Your task to perform on an android device: Show me productivity apps on the Play Store Image 0: 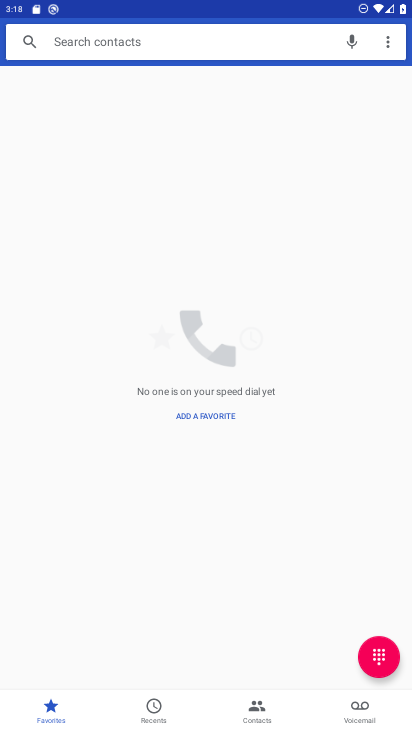
Step 0: press home button
Your task to perform on an android device: Show me productivity apps on the Play Store Image 1: 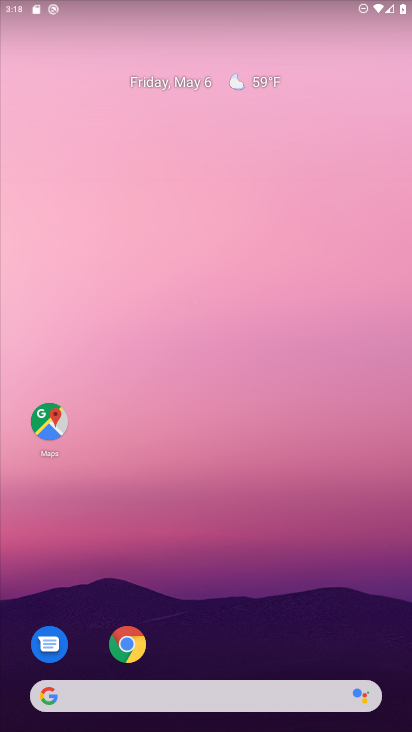
Step 1: drag from (244, 684) to (216, 277)
Your task to perform on an android device: Show me productivity apps on the Play Store Image 2: 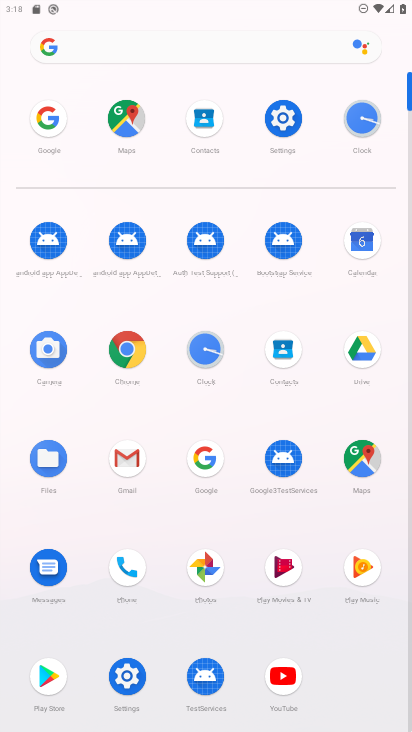
Step 2: click (49, 678)
Your task to perform on an android device: Show me productivity apps on the Play Store Image 3: 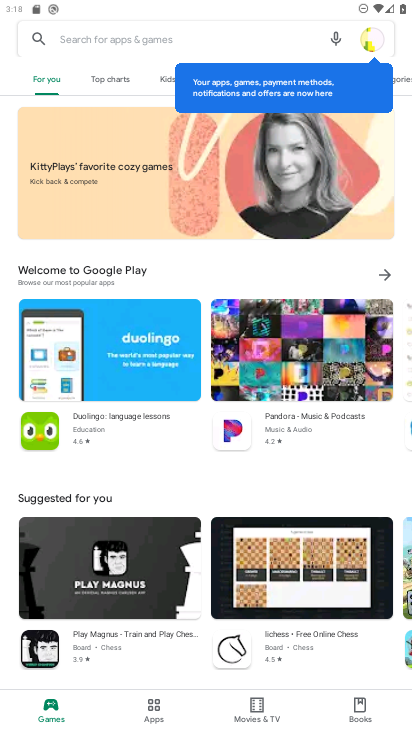
Step 3: click (152, 706)
Your task to perform on an android device: Show me productivity apps on the Play Store Image 4: 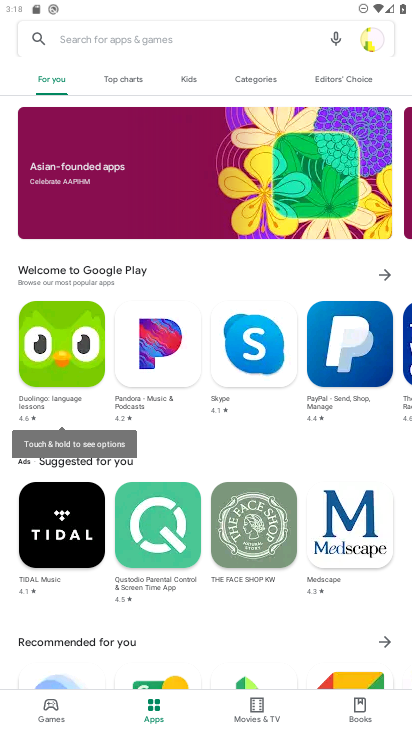
Step 4: drag from (337, 79) to (203, 92)
Your task to perform on an android device: Show me productivity apps on the Play Store Image 5: 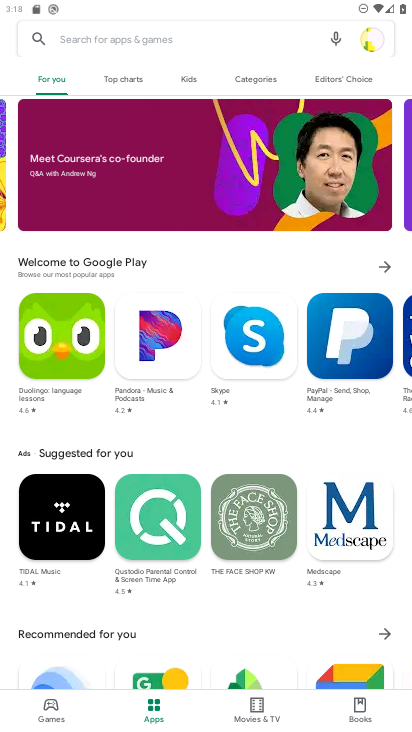
Step 5: click (260, 78)
Your task to perform on an android device: Show me productivity apps on the Play Store Image 6: 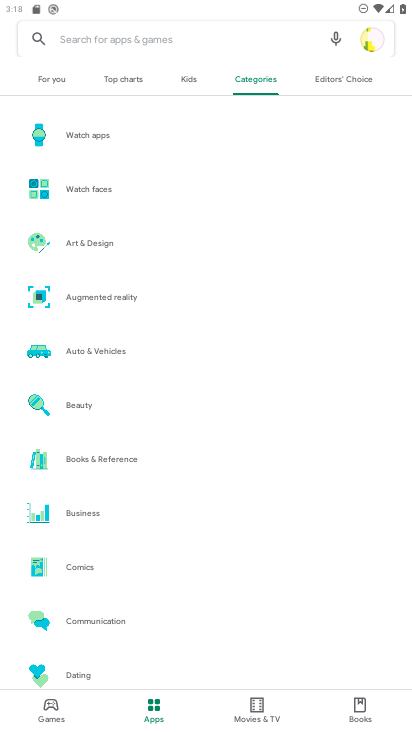
Step 6: drag from (118, 646) to (118, 297)
Your task to perform on an android device: Show me productivity apps on the Play Store Image 7: 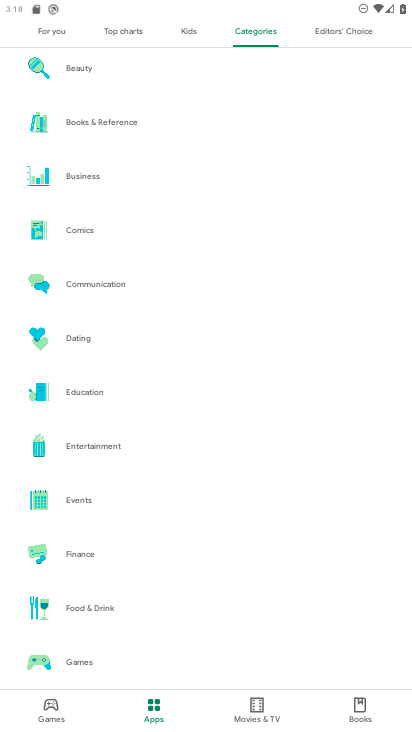
Step 7: drag from (113, 651) to (117, 288)
Your task to perform on an android device: Show me productivity apps on the Play Store Image 8: 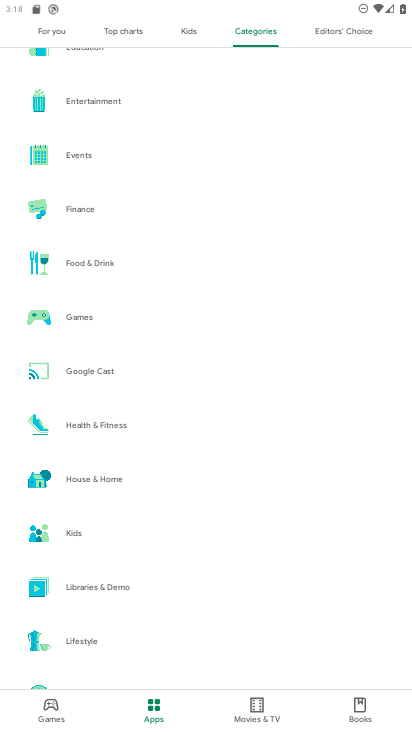
Step 8: drag from (112, 663) to (105, 384)
Your task to perform on an android device: Show me productivity apps on the Play Store Image 9: 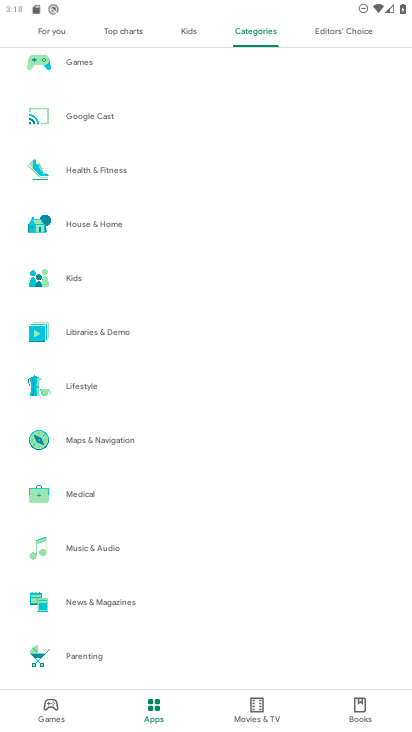
Step 9: drag from (123, 654) to (107, 380)
Your task to perform on an android device: Show me productivity apps on the Play Store Image 10: 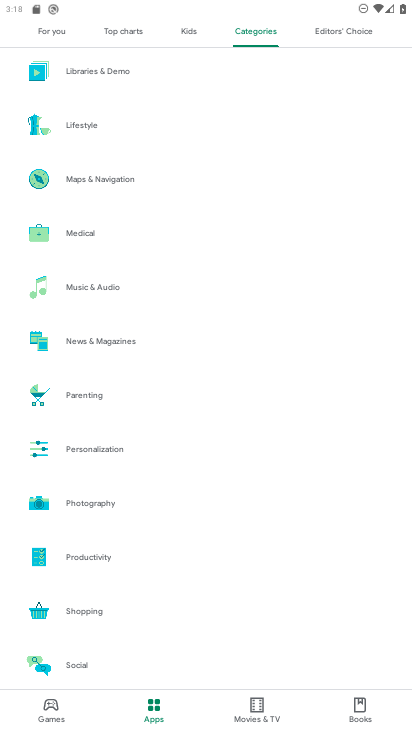
Step 10: click (108, 558)
Your task to perform on an android device: Show me productivity apps on the Play Store Image 11: 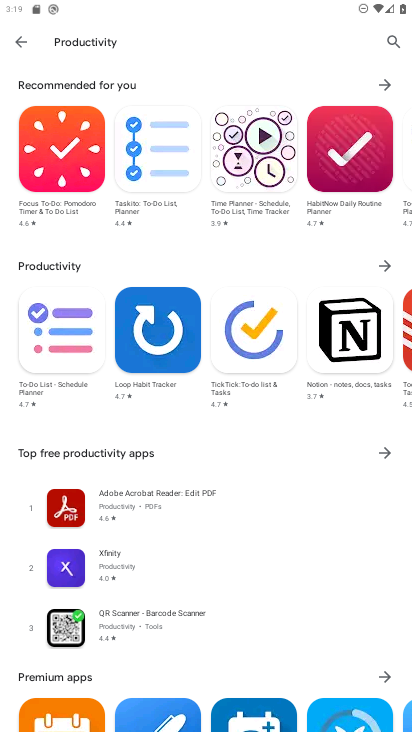
Step 11: task complete